Your task to perform on an android device: stop showing notifications on the lock screen Image 0: 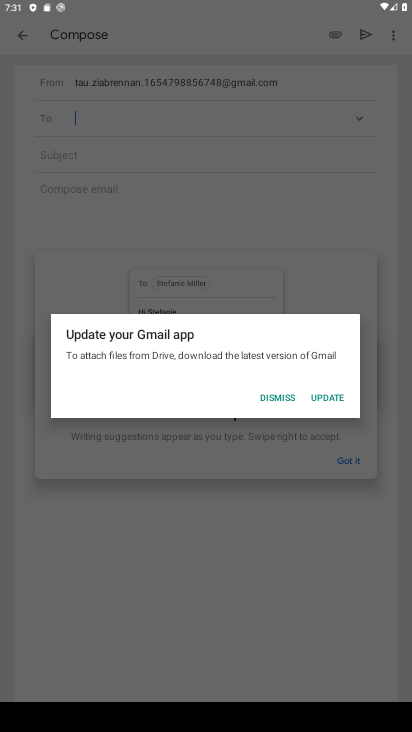
Step 0: press home button
Your task to perform on an android device: stop showing notifications on the lock screen Image 1: 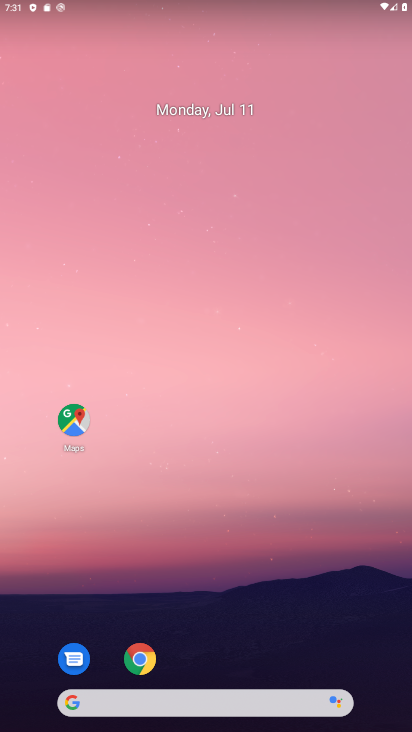
Step 1: drag from (255, 619) to (190, 0)
Your task to perform on an android device: stop showing notifications on the lock screen Image 2: 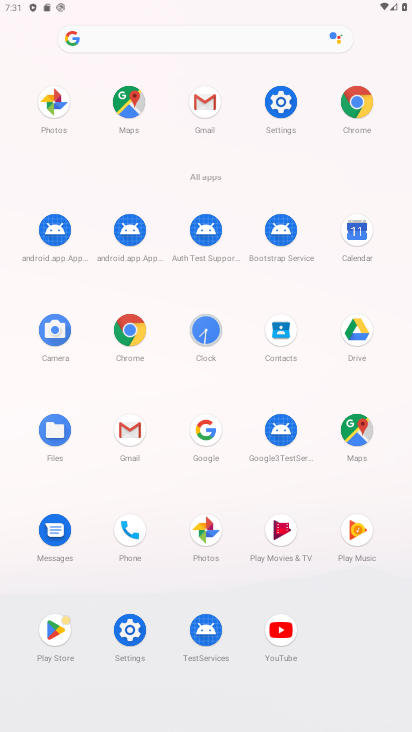
Step 2: click (284, 96)
Your task to perform on an android device: stop showing notifications on the lock screen Image 3: 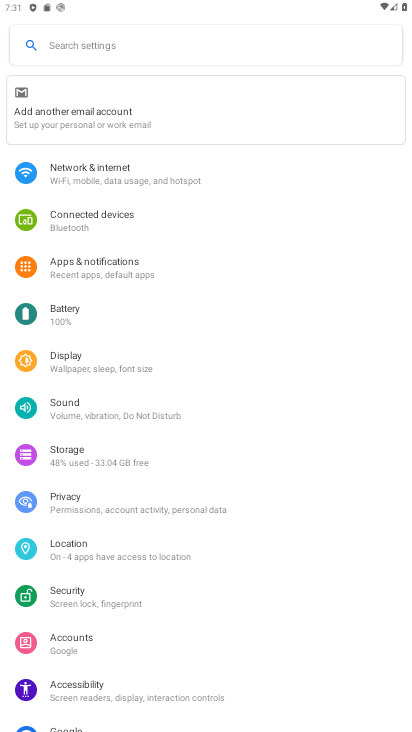
Step 3: click (122, 267)
Your task to perform on an android device: stop showing notifications on the lock screen Image 4: 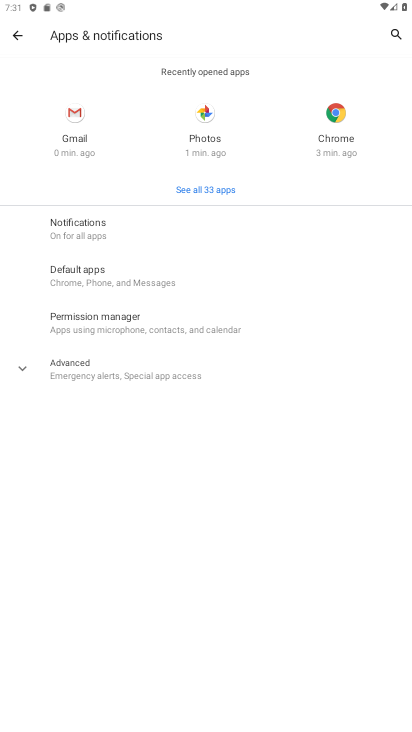
Step 4: click (79, 219)
Your task to perform on an android device: stop showing notifications on the lock screen Image 5: 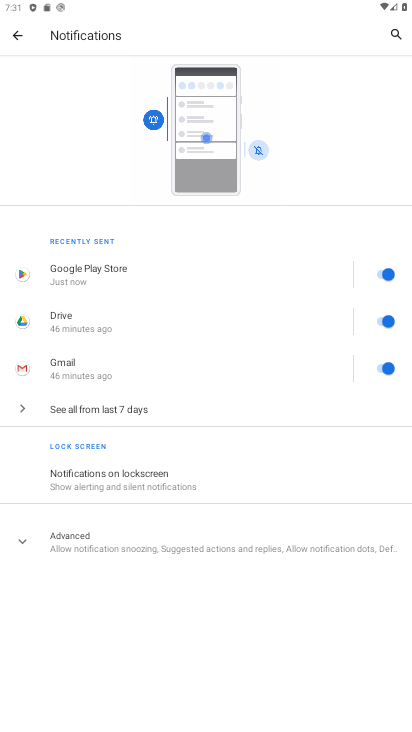
Step 5: click (151, 474)
Your task to perform on an android device: stop showing notifications on the lock screen Image 6: 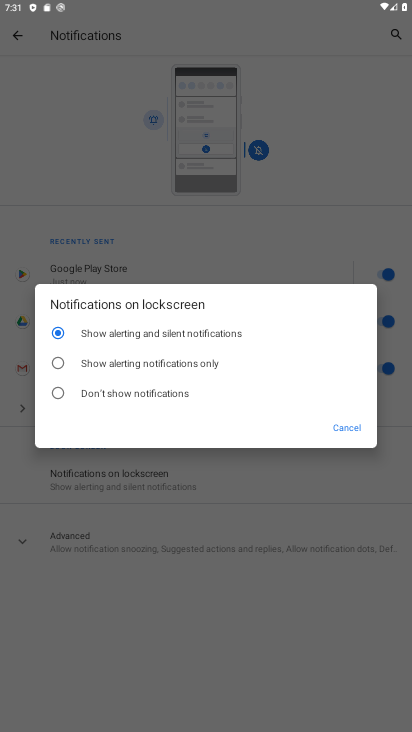
Step 6: click (129, 398)
Your task to perform on an android device: stop showing notifications on the lock screen Image 7: 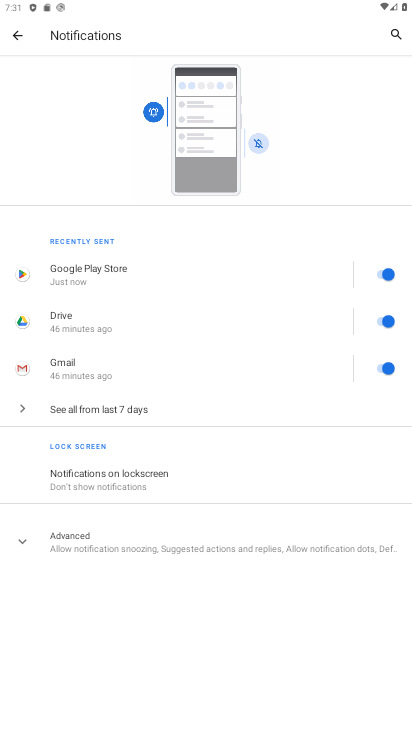
Step 7: task complete